Your task to perform on an android device: Go to Reddit.com Image 0: 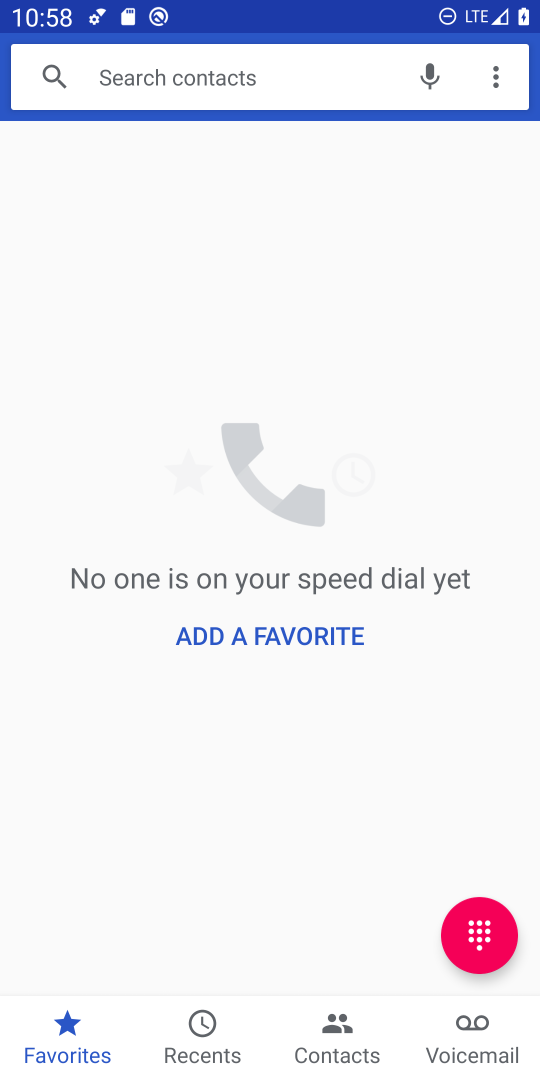
Step 0: press home button
Your task to perform on an android device: Go to Reddit.com Image 1: 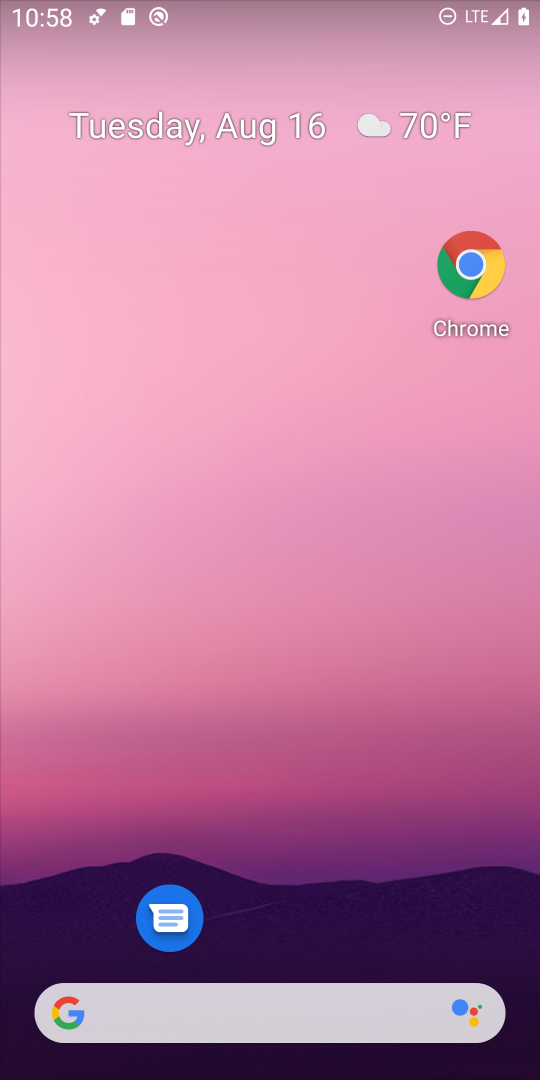
Step 1: drag from (293, 928) to (359, 54)
Your task to perform on an android device: Go to Reddit.com Image 2: 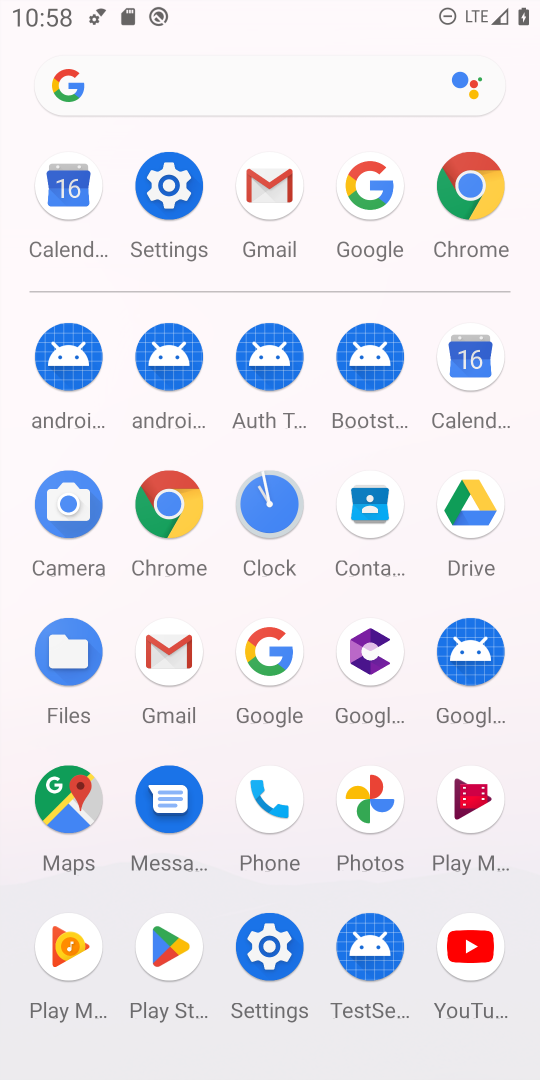
Step 2: click (482, 205)
Your task to perform on an android device: Go to Reddit.com Image 3: 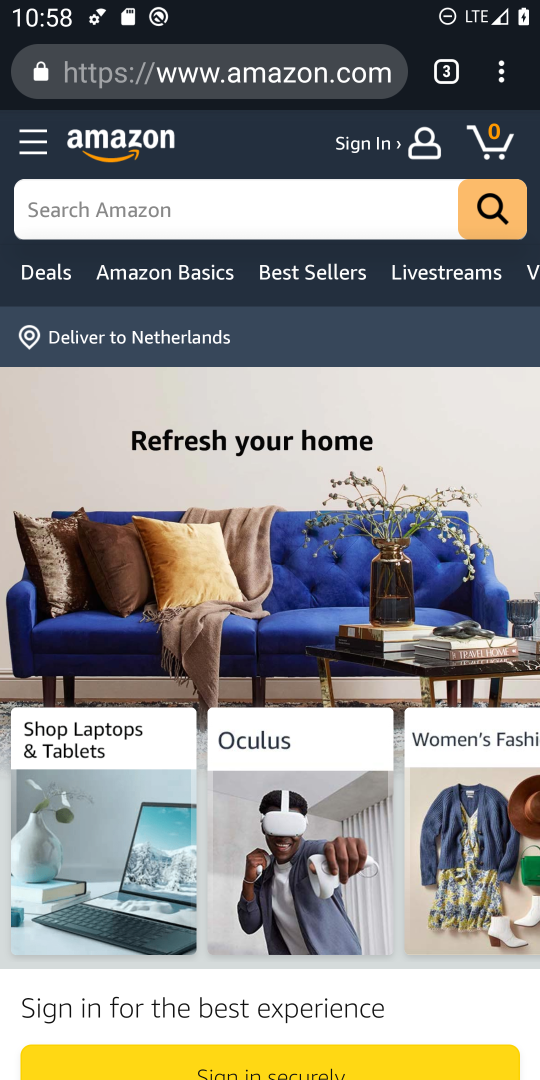
Step 3: click (393, 63)
Your task to perform on an android device: Go to Reddit.com Image 4: 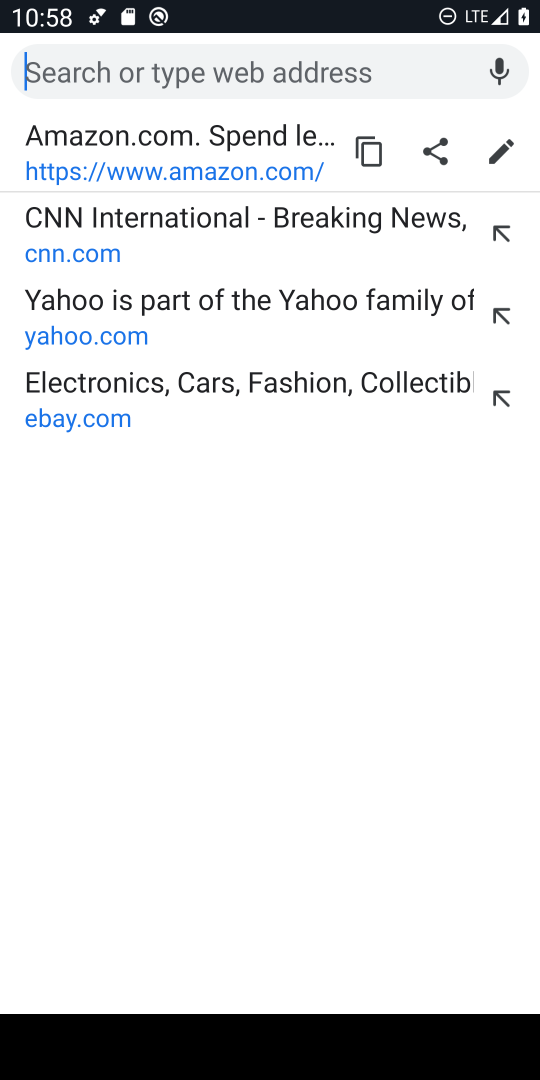
Step 4: type "reddit"
Your task to perform on an android device: Go to Reddit.com Image 5: 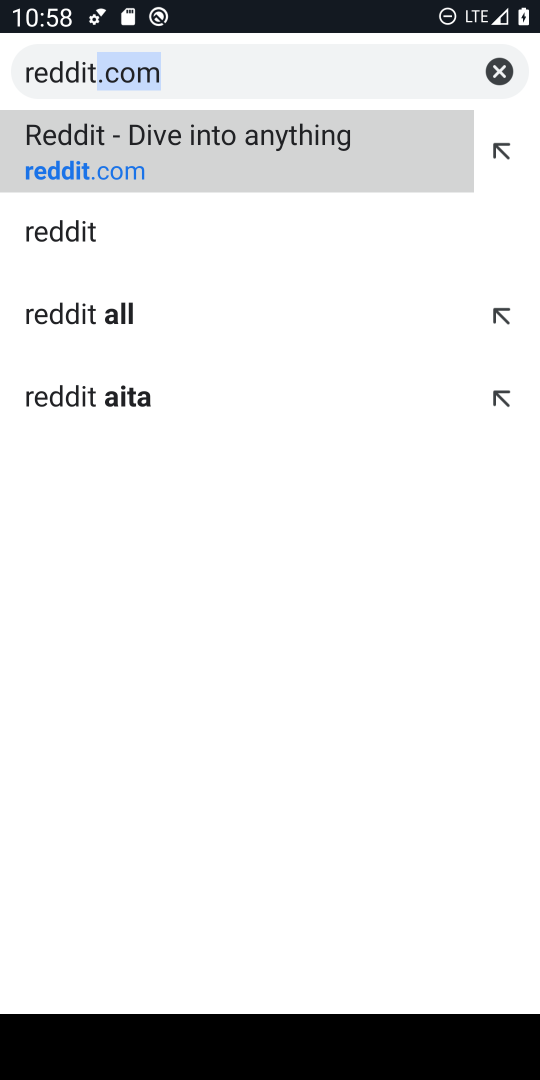
Step 5: click (219, 165)
Your task to perform on an android device: Go to Reddit.com Image 6: 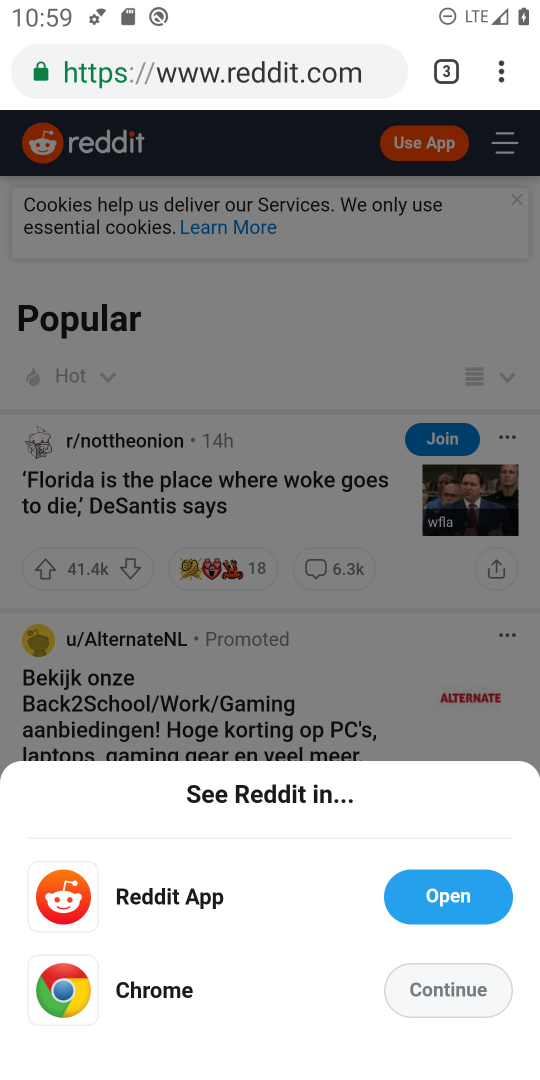
Step 6: task complete